Your task to perform on an android device: Open location settings Image 0: 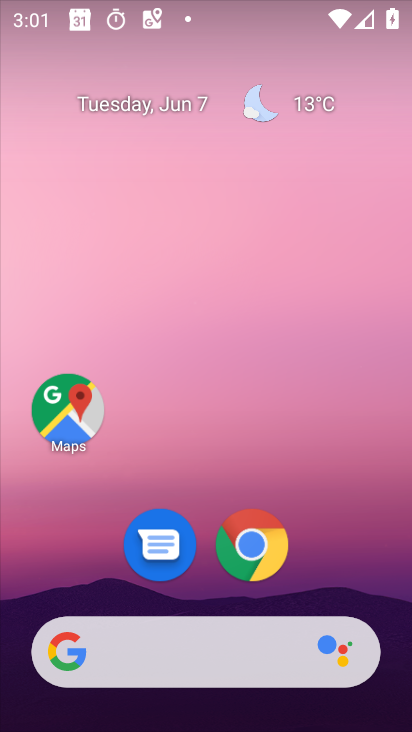
Step 0: drag from (353, 573) to (338, 43)
Your task to perform on an android device: Open location settings Image 1: 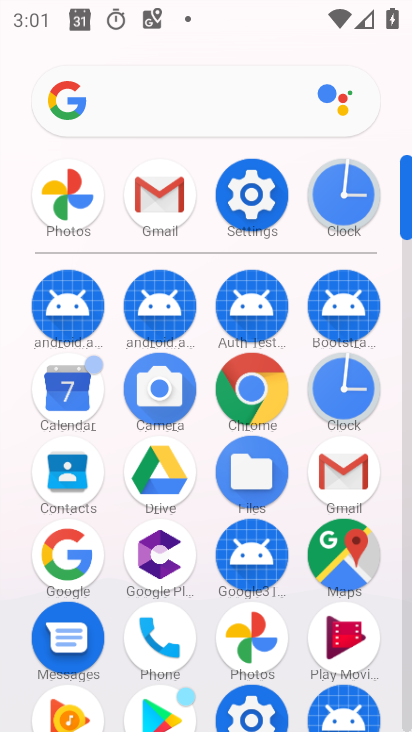
Step 1: click (274, 209)
Your task to perform on an android device: Open location settings Image 2: 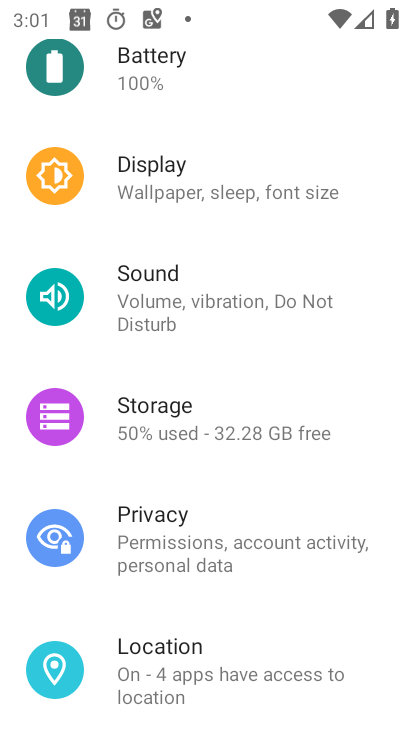
Step 2: click (185, 649)
Your task to perform on an android device: Open location settings Image 3: 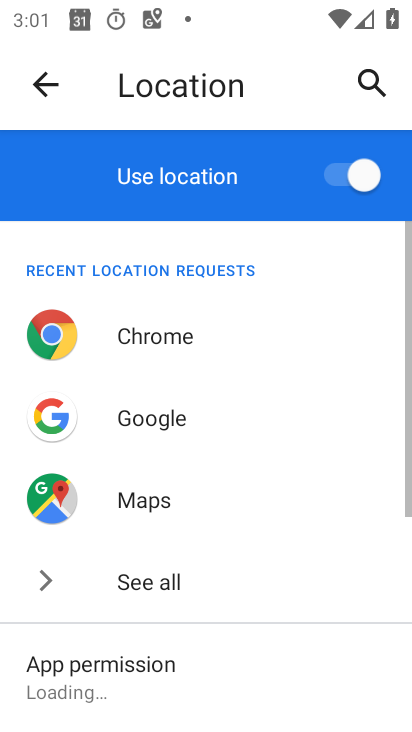
Step 3: task complete